Your task to perform on an android device: snooze an email in the gmail app Image 0: 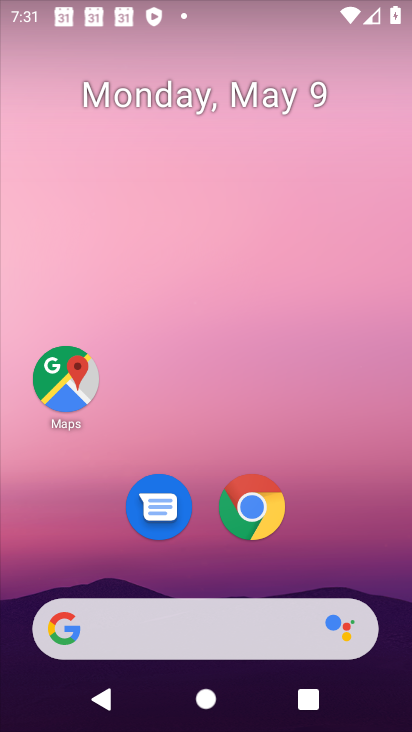
Step 0: drag from (183, 659) to (298, 218)
Your task to perform on an android device: snooze an email in the gmail app Image 1: 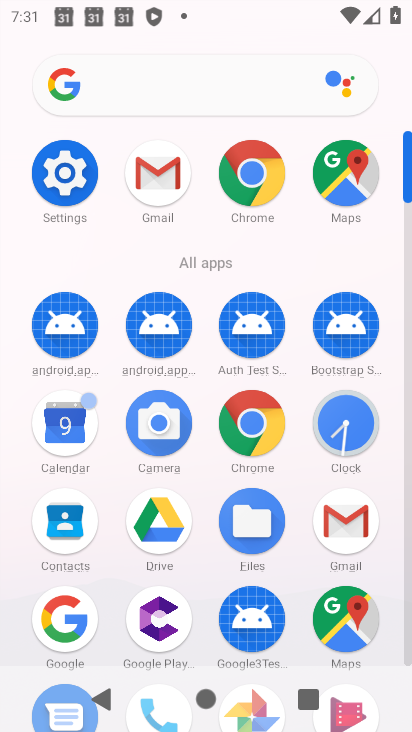
Step 1: click (145, 194)
Your task to perform on an android device: snooze an email in the gmail app Image 2: 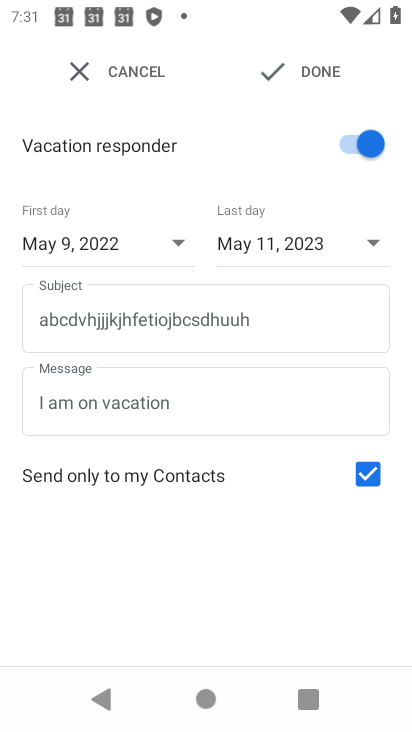
Step 2: click (69, 68)
Your task to perform on an android device: snooze an email in the gmail app Image 3: 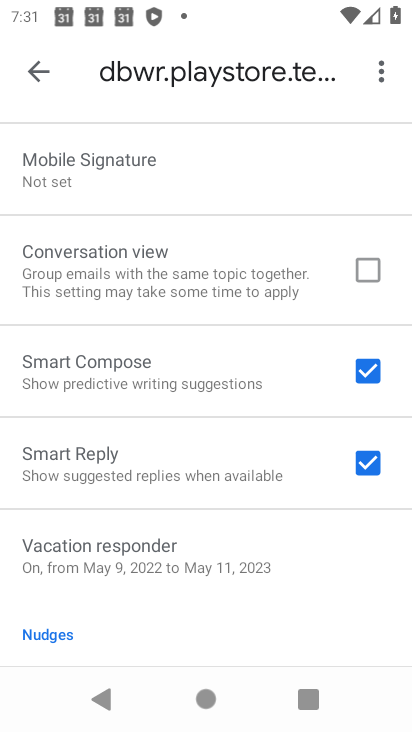
Step 3: click (38, 68)
Your task to perform on an android device: snooze an email in the gmail app Image 4: 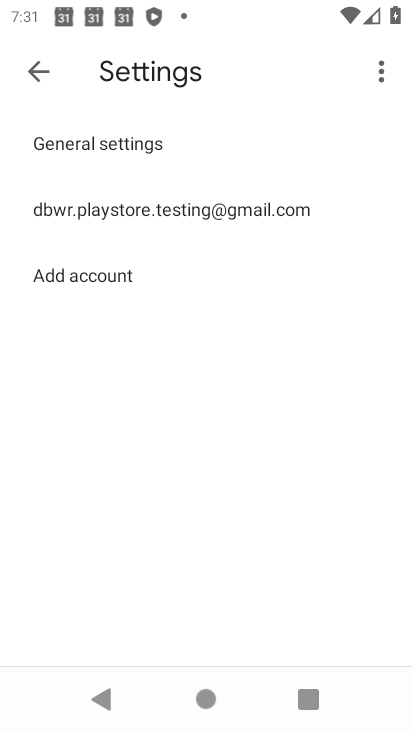
Step 4: click (37, 68)
Your task to perform on an android device: snooze an email in the gmail app Image 5: 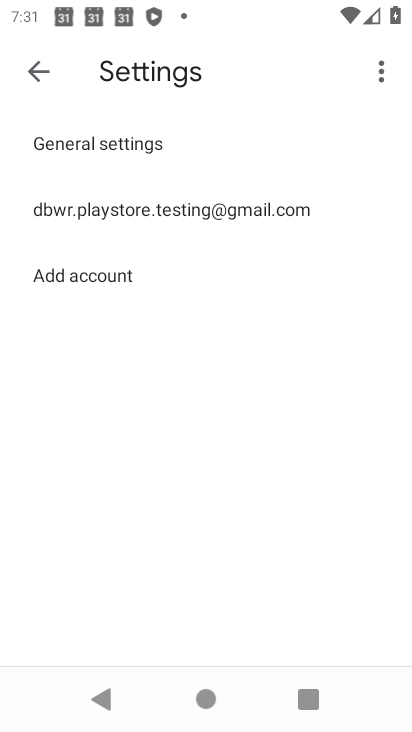
Step 5: click (36, 67)
Your task to perform on an android device: snooze an email in the gmail app Image 6: 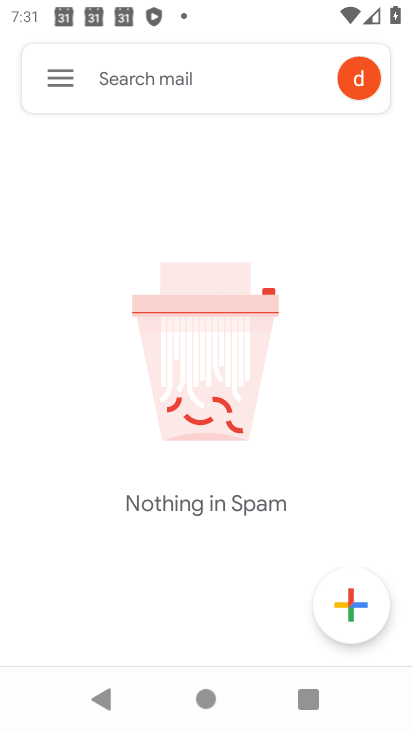
Step 6: click (52, 81)
Your task to perform on an android device: snooze an email in the gmail app Image 7: 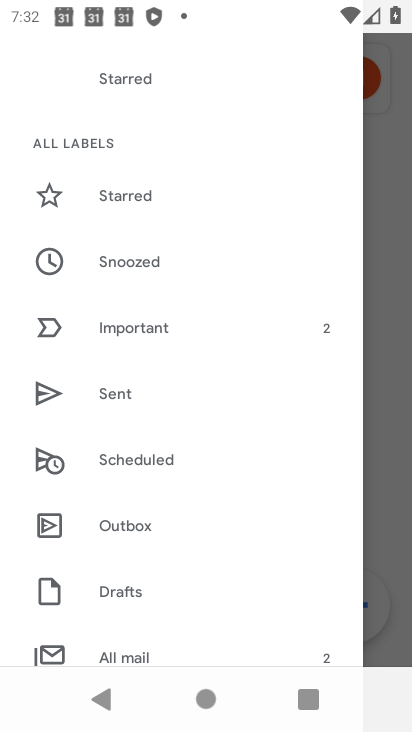
Step 7: click (123, 652)
Your task to perform on an android device: snooze an email in the gmail app Image 8: 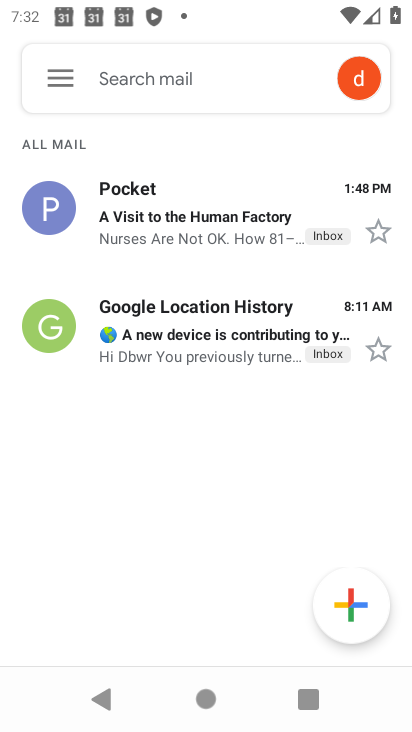
Step 8: click (191, 210)
Your task to perform on an android device: snooze an email in the gmail app Image 9: 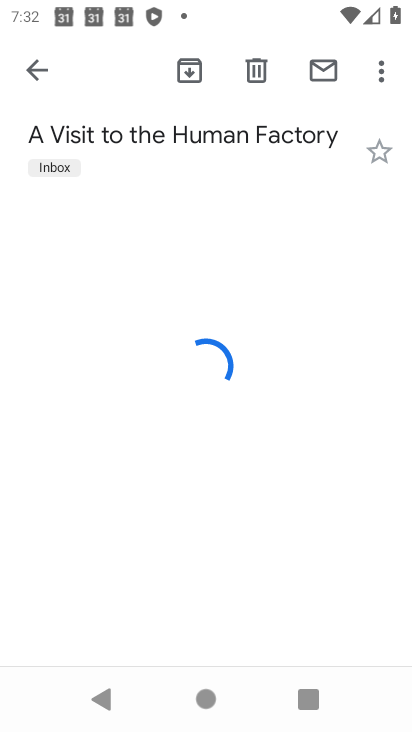
Step 9: click (385, 82)
Your task to perform on an android device: snooze an email in the gmail app Image 10: 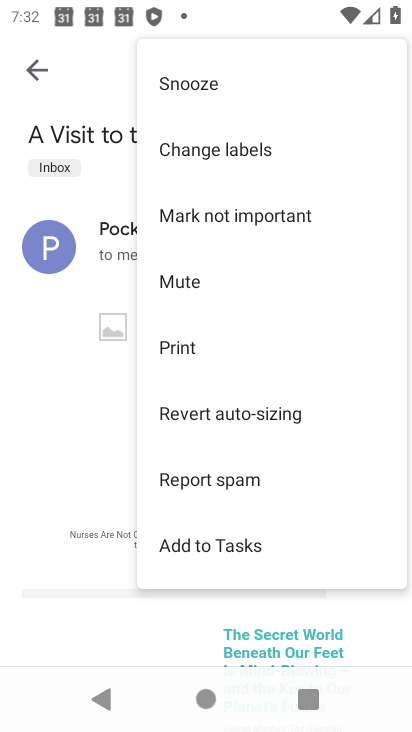
Step 10: click (198, 92)
Your task to perform on an android device: snooze an email in the gmail app Image 11: 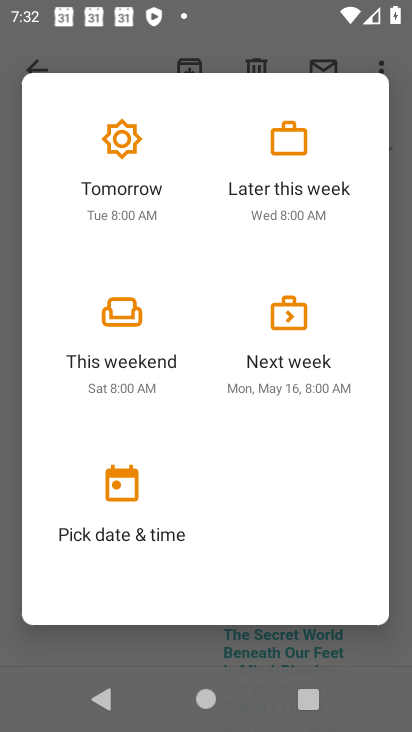
Step 11: click (140, 198)
Your task to perform on an android device: snooze an email in the gmail app Image 12: 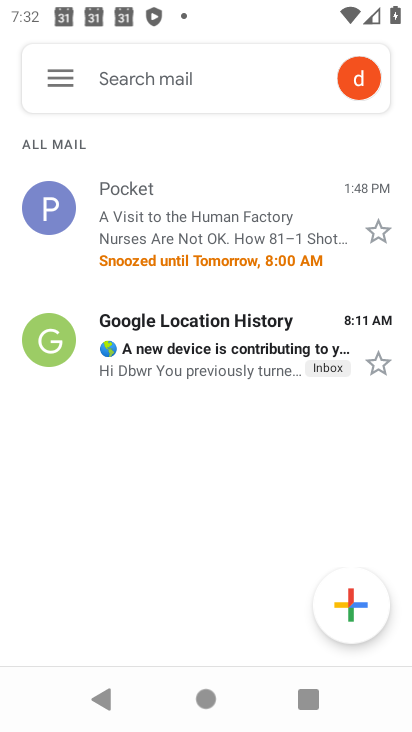
Step 12: task complete